Your task to perform on an android device: allow cookies in the chrome app Image 0: 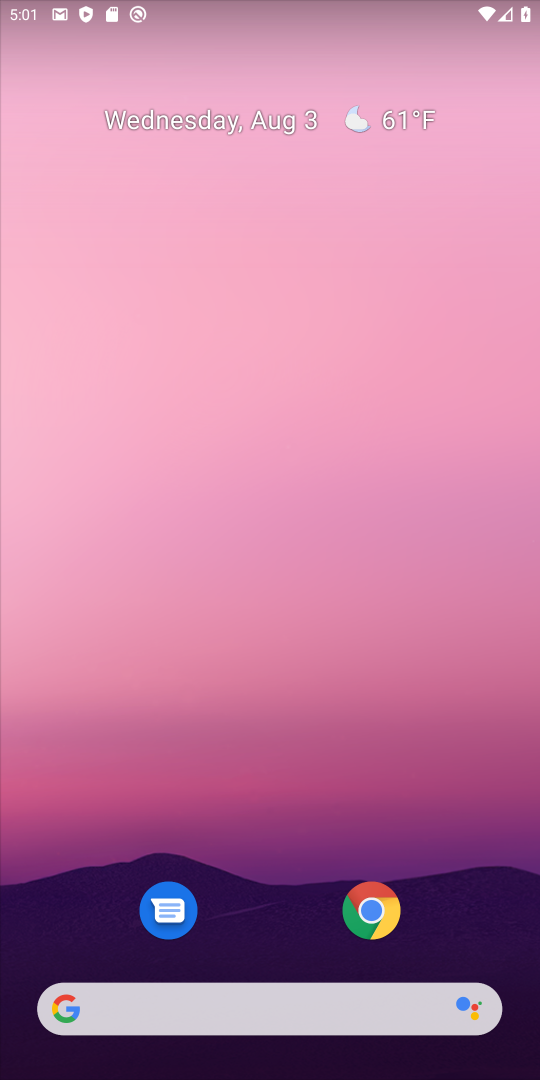
Step 0: drag from (284, 922) to (443, 99)
Your task to perform on an android device: allow cookies in the chrome app Image 1: 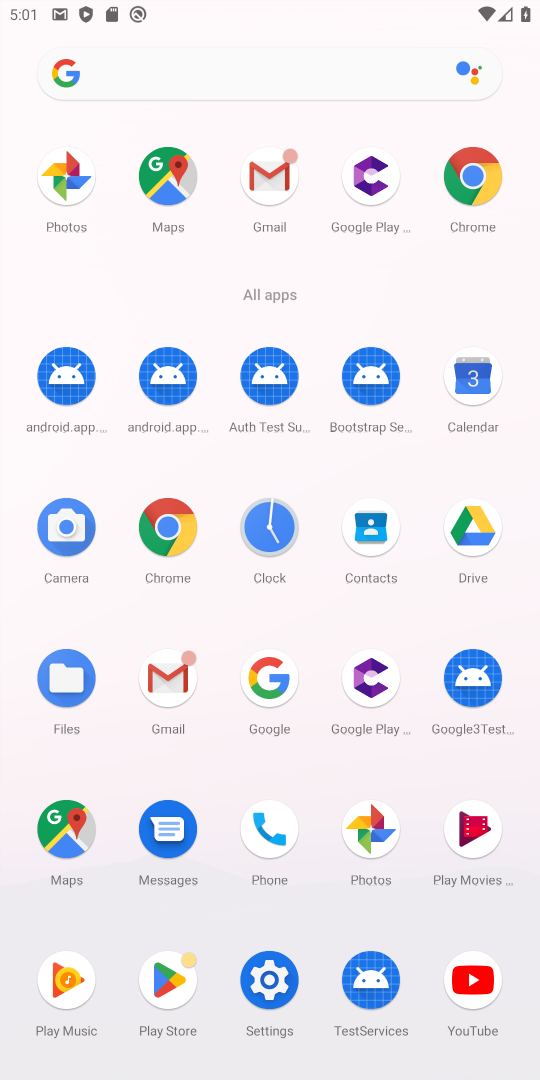
Step 1: click (176, 521)
Your task to perform on an android device: allow cookies in the chrome app Image 2: 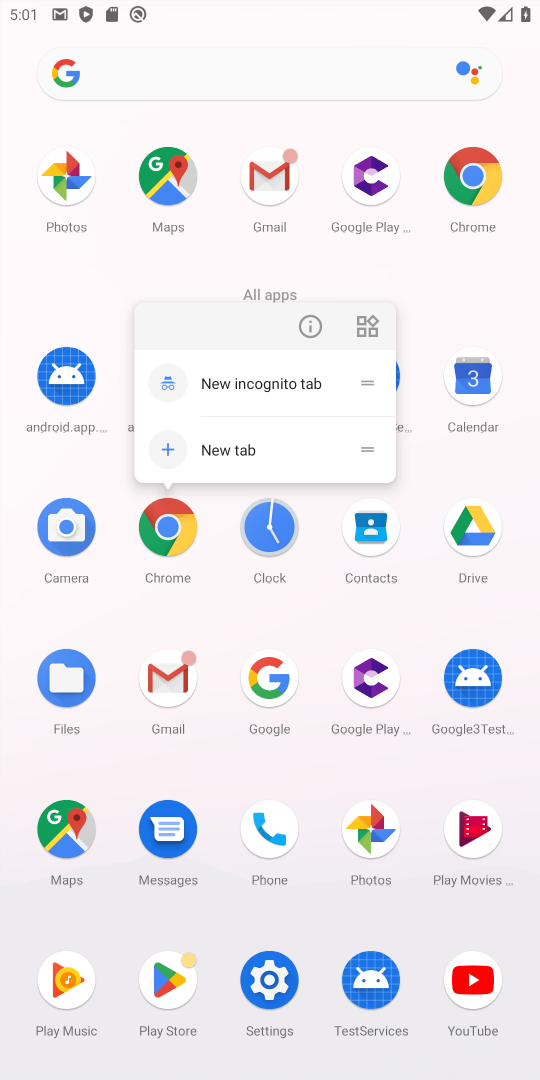
Step 2: click (176, 521)
Your task to perform on an android device: allow cookies in the chrome app Image 3: 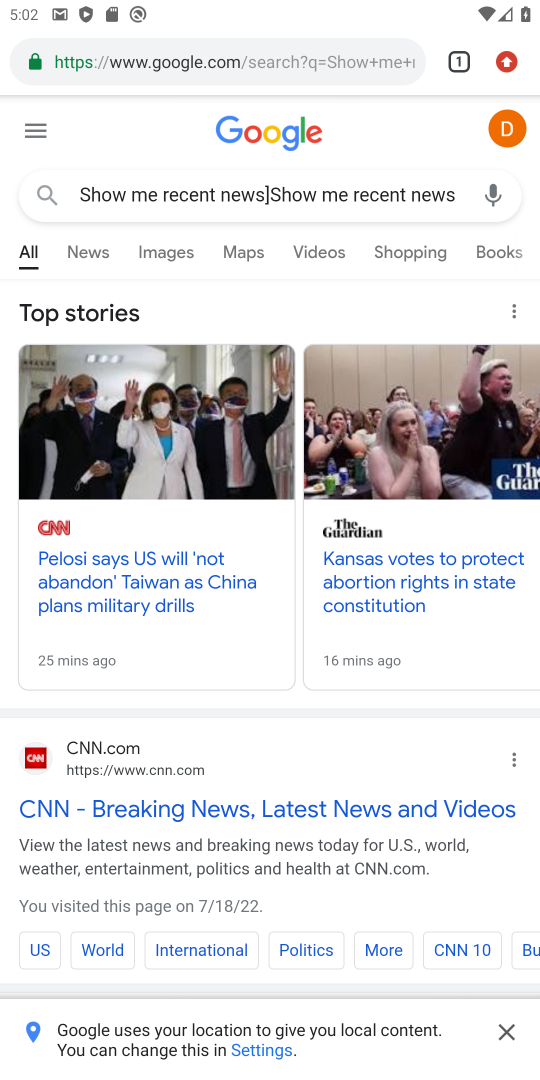
Step 3: drag from (504, 50) to (296, 730)
Your task to perform on an android device: allow cookies in the chrome app Image 4: 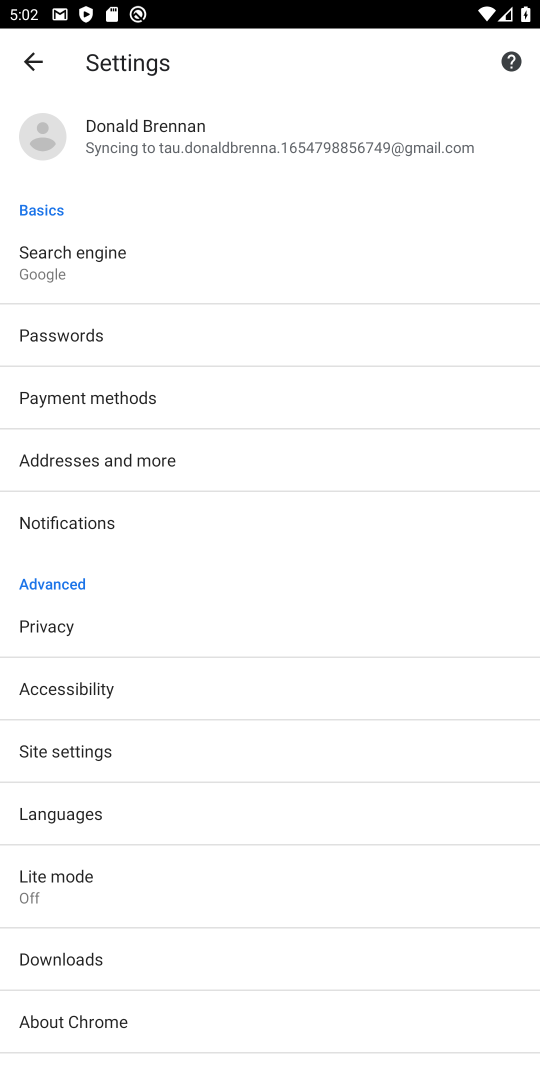
Step 4: drag from (182, 837) to (211, 501)
Your task to perform on an android device: allow cookies in the chrome app Image 5: 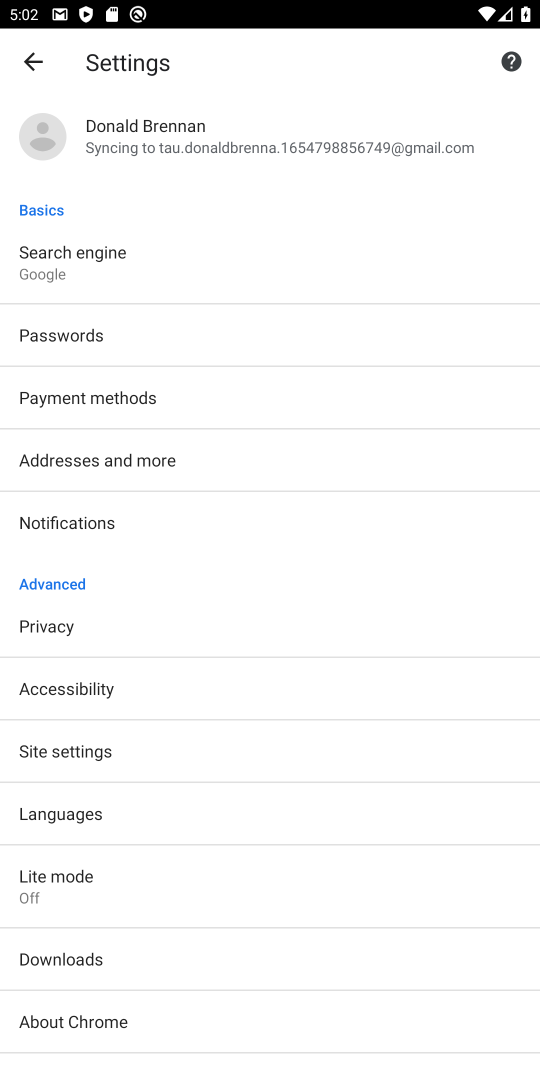
Step 5: click (54, 617)
Your task to perform on an android device: allow cookies in the chrome app Image 6: 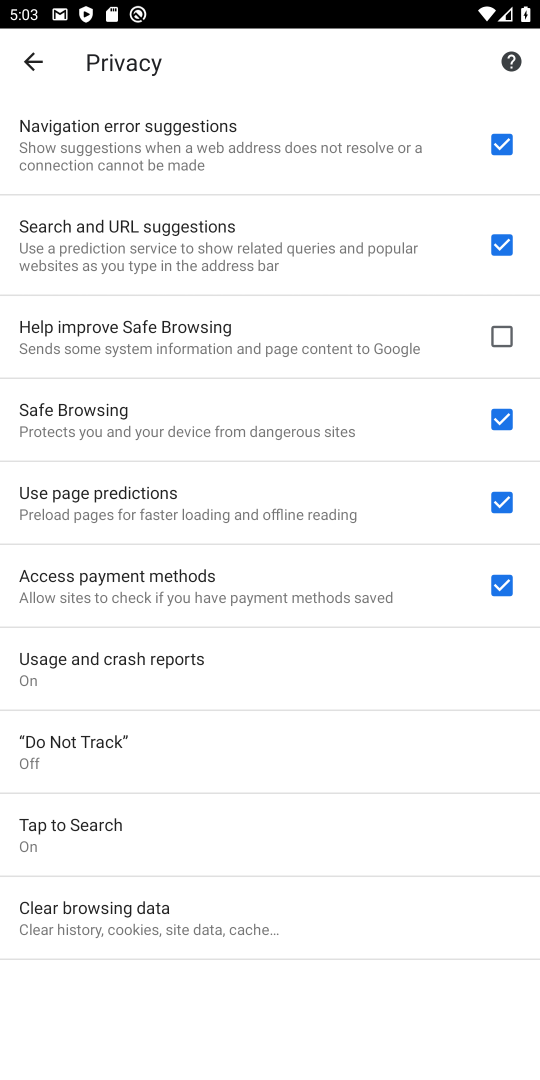
Step 6: click (133, 912)
Your task to perform on an android device: allow cookies in the chrome app Image 7: 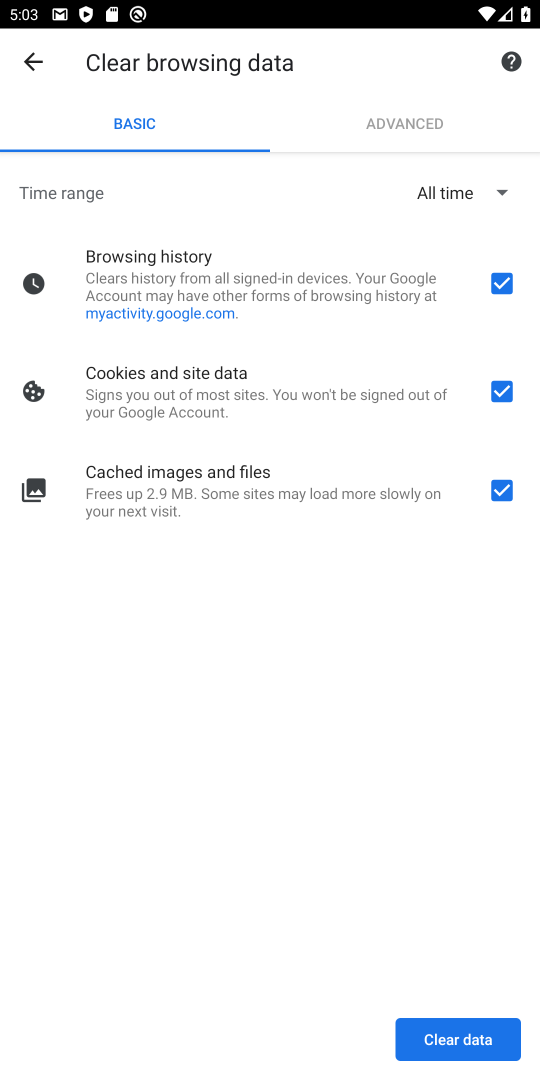
Step 7: click (452, 1048)
Your task to perform on an android device: allow cookies in the chrome app Image 8: 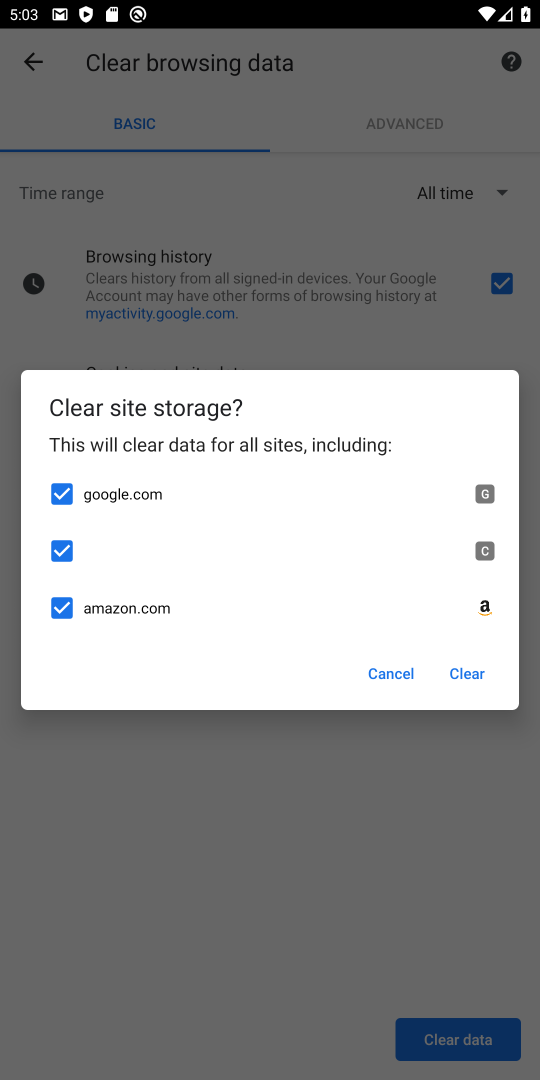
Step 8: click (473, 680)
Your task to perform on an android device: allow cookies in the chrome app Image 9: 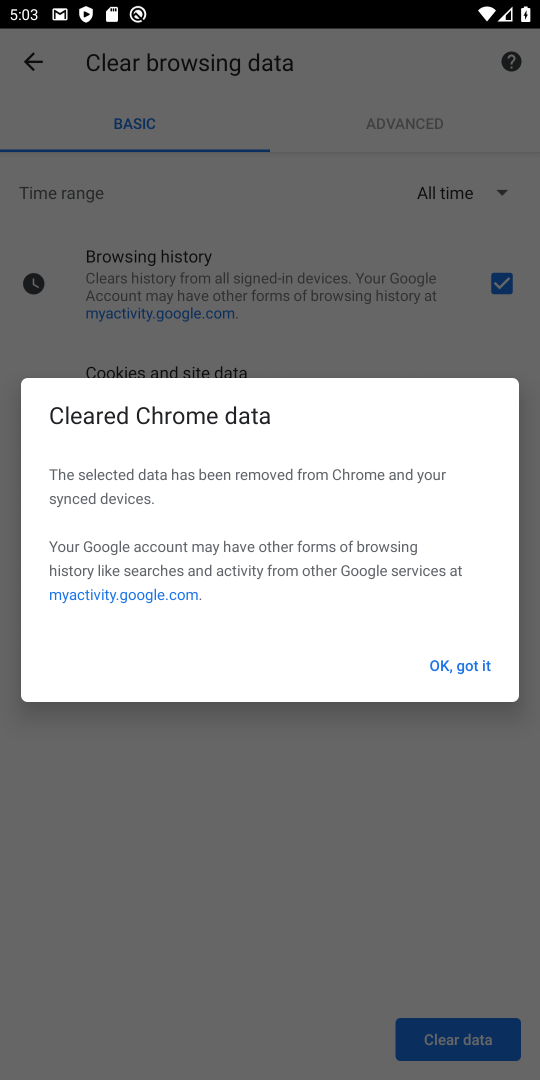
Step 9: click (464, 654)
Your task to perform on an android device: allow cookies in the chrome app Image 10: 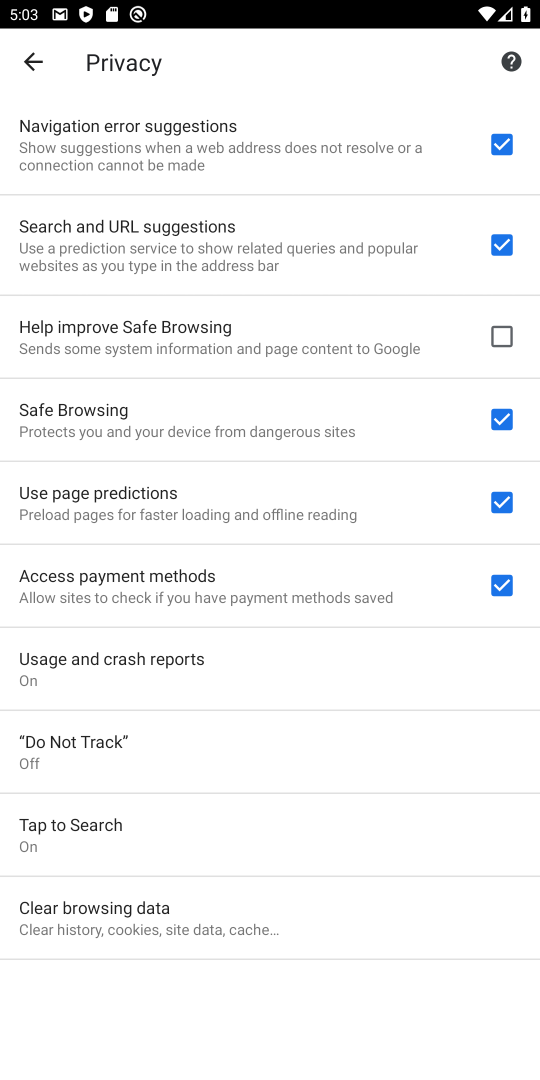
Step 10: task complete